Your task to perform on an android device: turn off wifi Image 0: 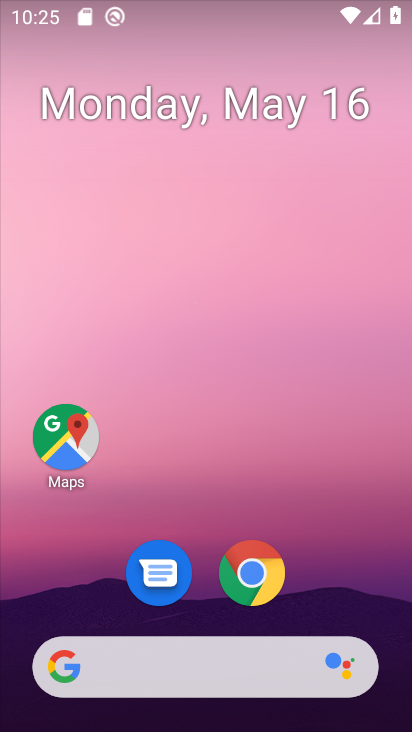
Step 0: drag from (215, 7) to (197, 390)
Your task to perform on an android device: turn off wifi Image 1: 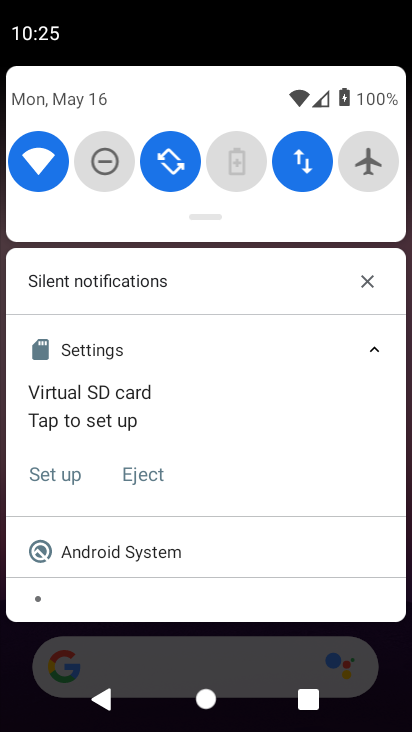
Step 1: click (40, 150)
Your task to perform on an android device: turn off wifi Image 2: 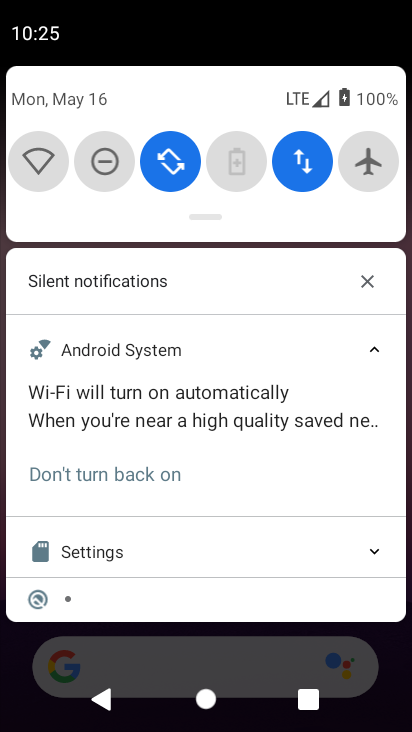
Step 2: task complete